Your task to perform on an android device: Go to accessibility settings Image 0: 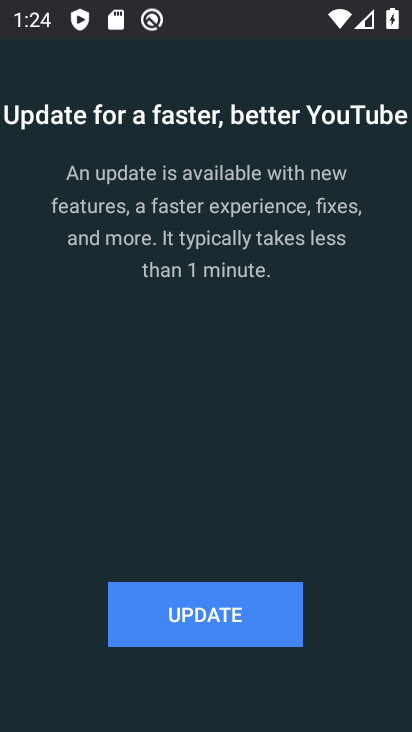
Step 0: press home button
Your task to perform on an android device: Go to accessibility settings Image 1: 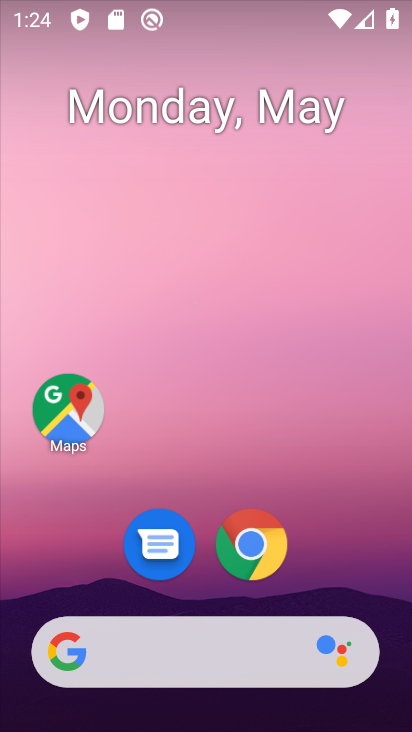
Step 1: drag from (383, 582) to (381, 281)
Your task to perform on an android device: Go to accessibility settings Image 2: 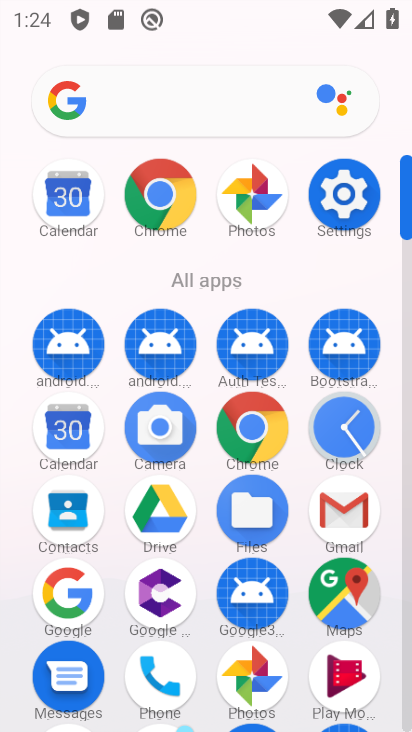
Step 2: click (338, 218)
Your task to perform on an android device: Go to accessibility settings Image 3: 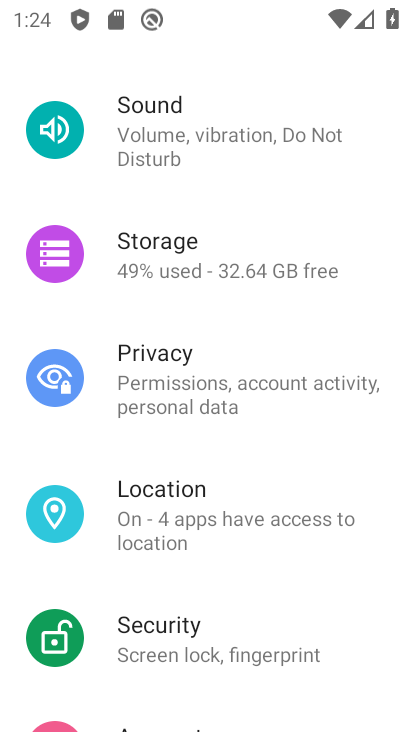
Step 3: drag from (359, 276) to (363, 389)
Your task to perform on an android device: Go to accessibility settings Image 4: 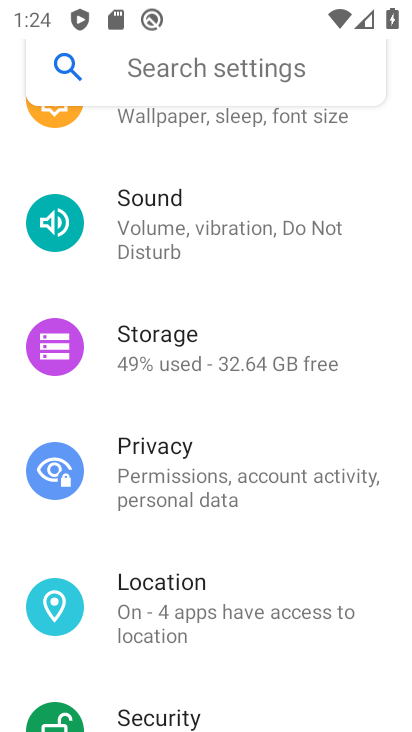
Step 4: drag from (364, 215) to (363, 370)
Your task to perform on an android device: Go to accessibility settings Image 5: 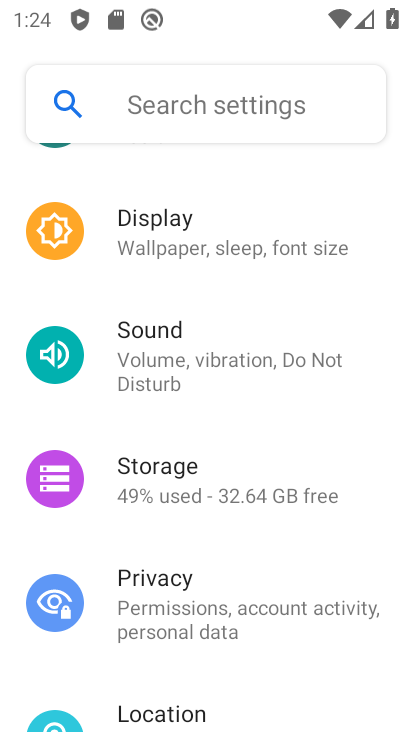
Step 5: drag from (369, 201) to (375, 348)
Your task to perform on an android device: Go to accessibility settings Image 6: 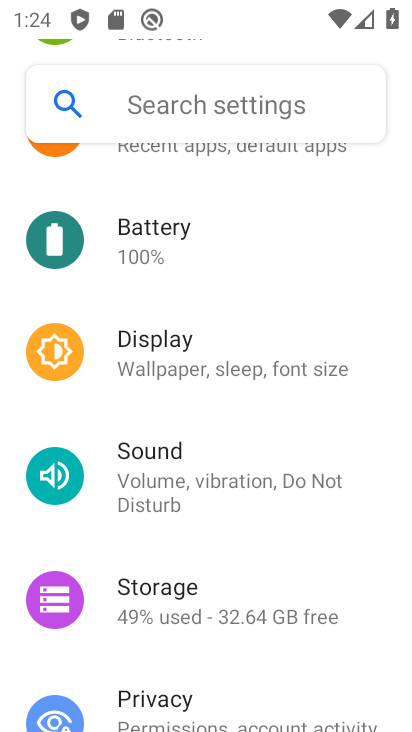
Step 6: drag from (366, 200) to (361, 301)
Your task to perform on an android device: Go to accessibility settings Image 7: 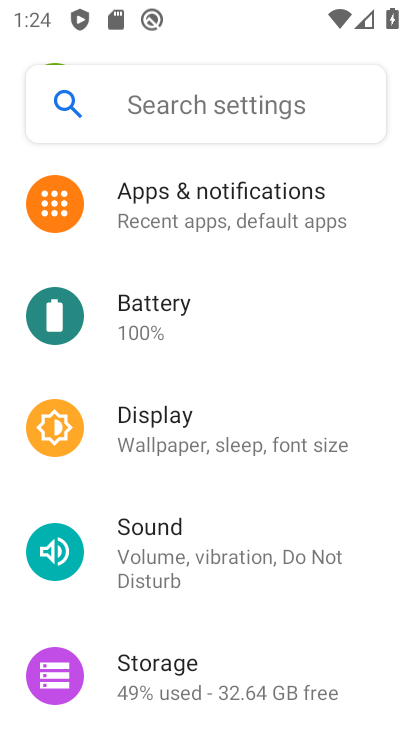
Step 7: drag from (365, 182) to (360, 298)
Your task to perform on an android device: Go to accessibility settings Image 8: 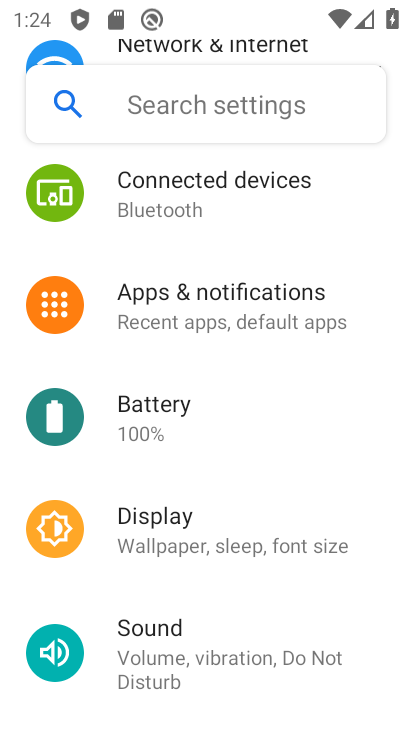
Step 8: drag from (364, 210) to (364, 436)
Your task to perform on an android device: Go to accessibility settings Image 9: 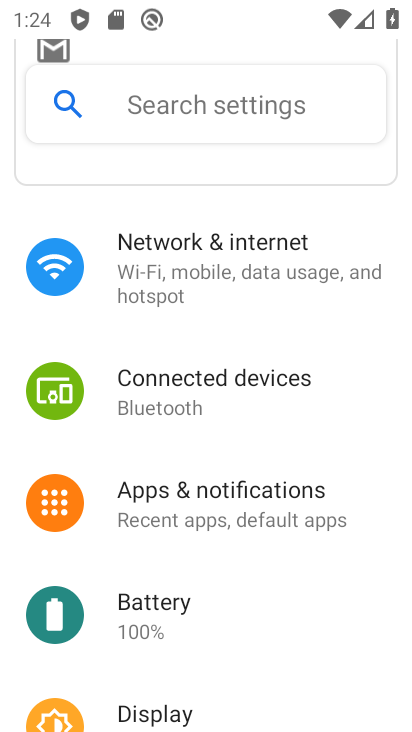
Step 9: drag from (352, 345) to (352, 408)
Your task to perform on an android device: Go to accessibility settings Image 10: 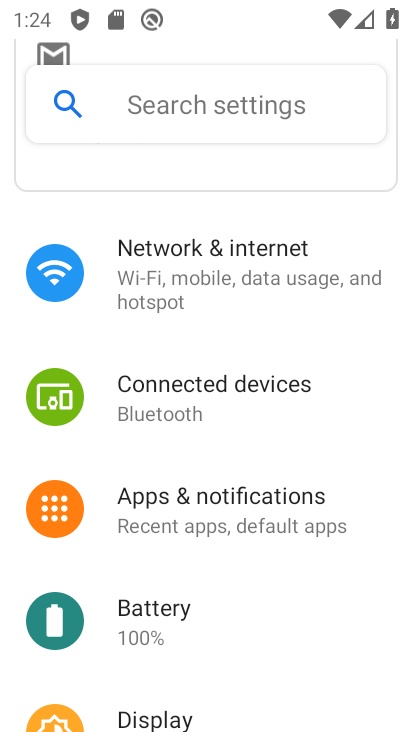
Step 10: drag from (349, 419) to (354, 250)
Your task to perform on an android device: Go to accessibility settings Image 11: 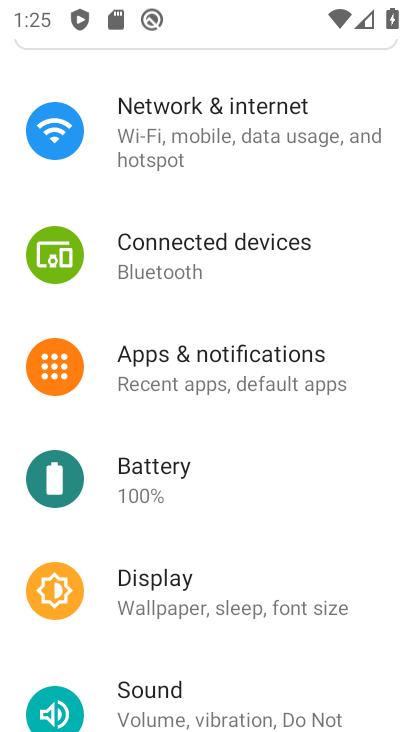
Step 11: drag from (357, 449) to (356, 282)
Your task to perform on an android device: Go to accessibility settings Image 12: 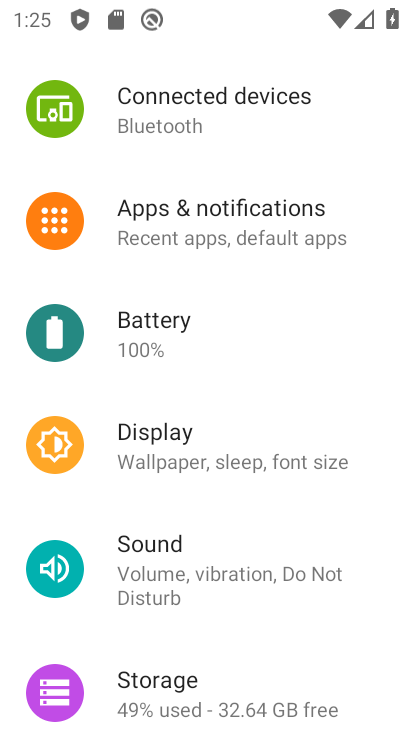
Step 12: drag from (344, 514) to (353, 306)
Your task to perform on an android device: Go to accessibility settings Image 13: 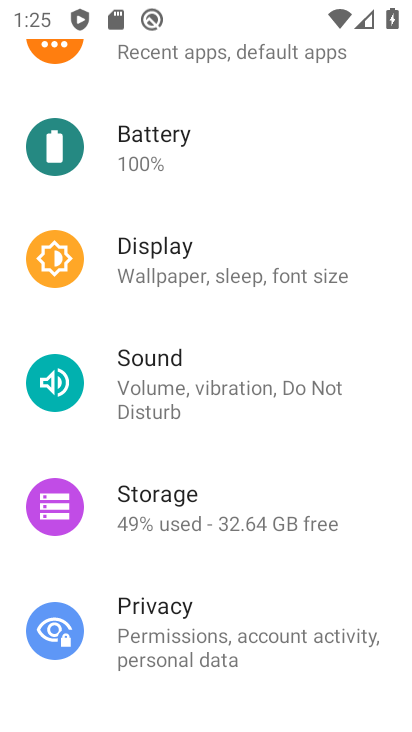
Step 13: drag from (349, 471) to (362, 308)
Your task to perform on an android device: Go to accessibility settings Image 14: 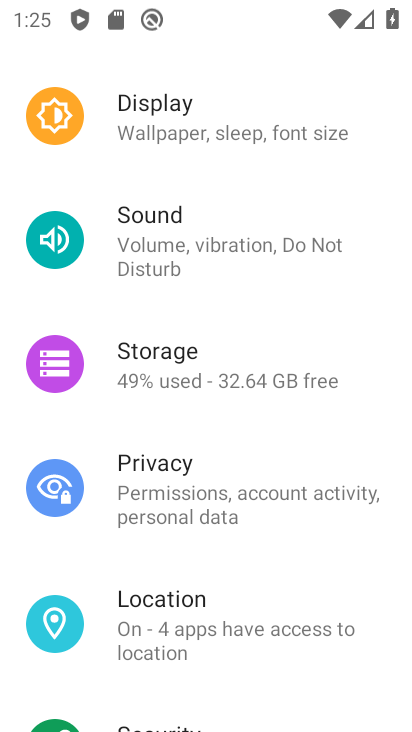
Step 14: drag from (357, 500) to (369, 329)
Your task to perform on an android device: Go to accessibility settings Image 15: 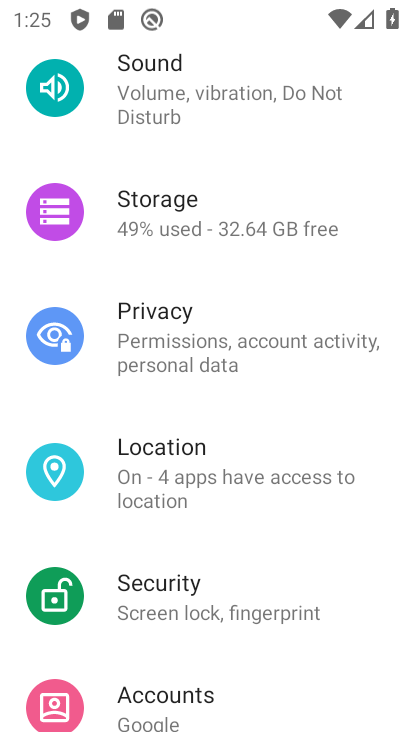
Step 15: drag from (367, 521) to (374, 352)
Your task to perform on an android device: Go to accessibility settings Image 16: 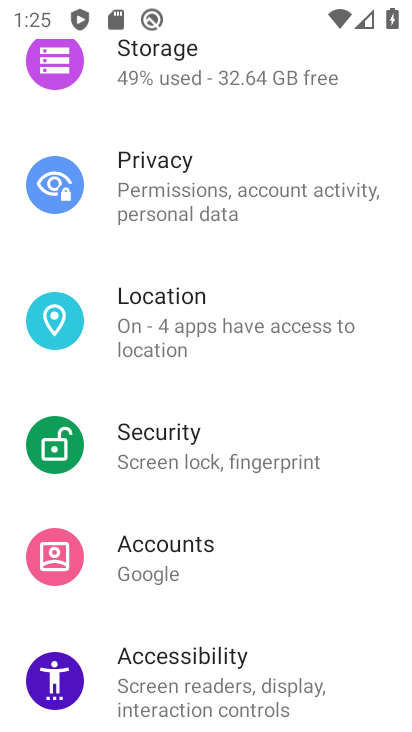
Step 16: drag from (326, 551) to (328, 377)
Your task to perform on an android device: Go to accessibility settings Image 17: 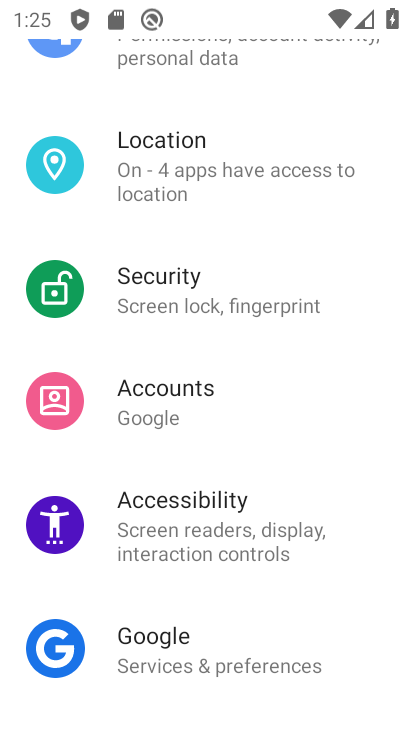
Step 17: click (242, 559)
Your task to perform on an android device: Go to accessibility settings Image 18: 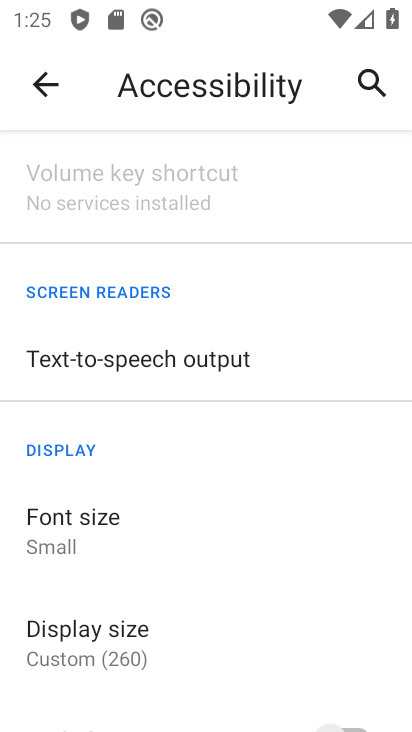
Step 18: task complete